Your task to perform on an android device: Go to ESPN.com Image 0: 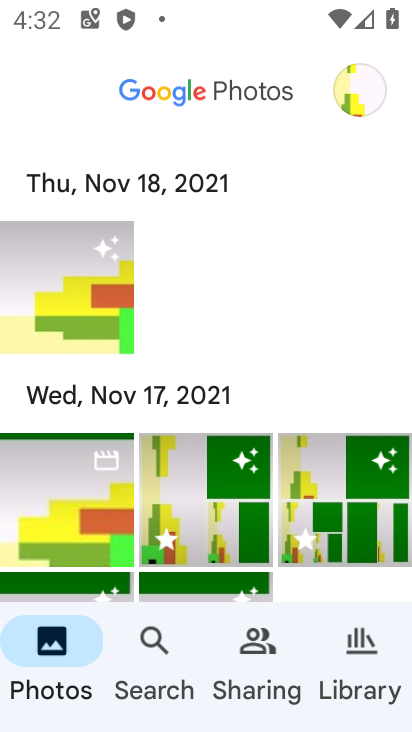
Step 0: press home button
Your task to perform on an android device: Go to ESPN.com Image 1: 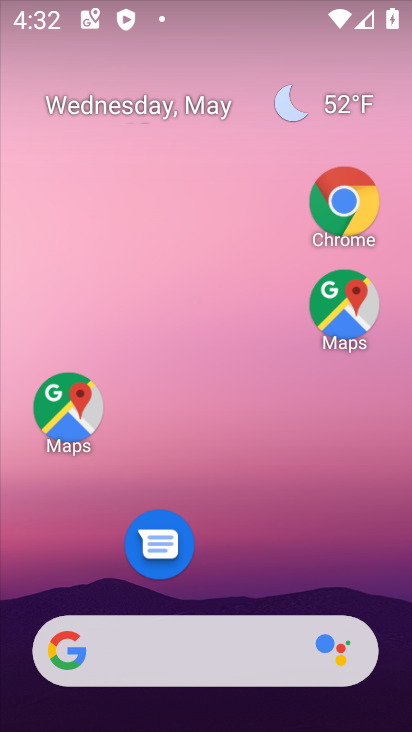
Step 1: click (348, 210)
Your task to perform on an android device: Go to ESPN.com Image 2: 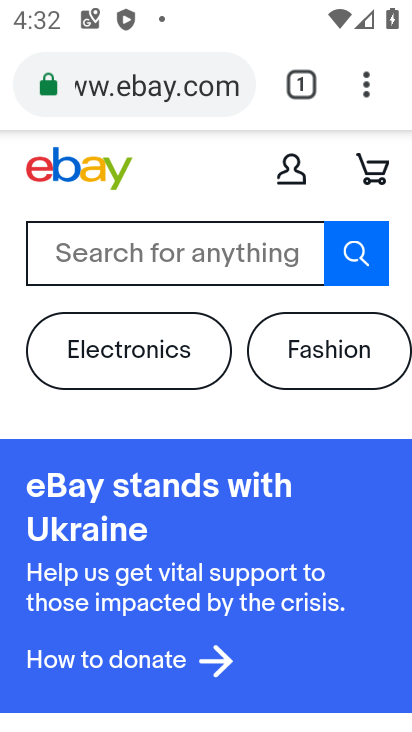
Step 2: press back button
Your task to perform on an android device: Go to ESPN.com Image 3: 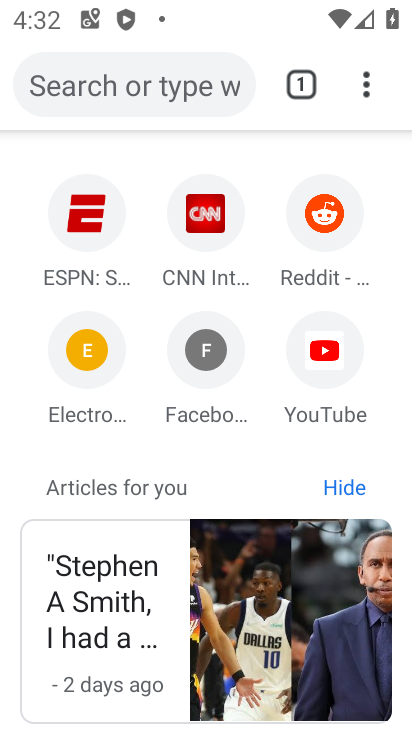
Step 3: click (96, 237)
Your task to perform on an android device: Go to ESPN.com Image 4: 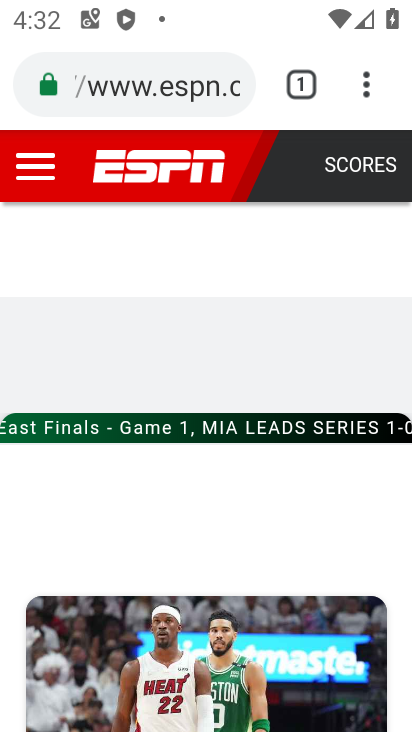
Step 4: task complete